Your task to perform on an android device: change the clock style Image 0: 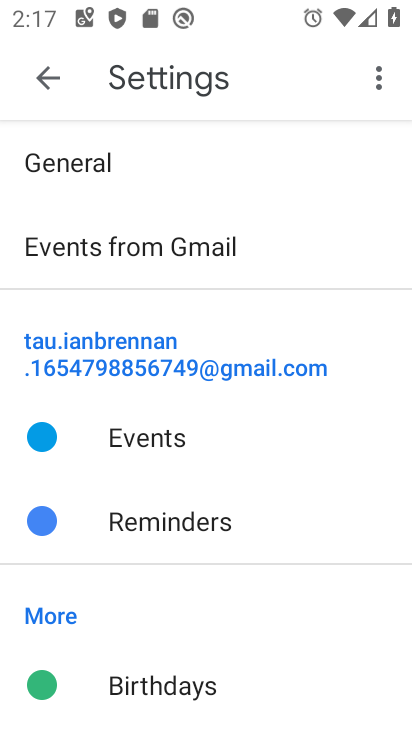
Step 0: press home button
Your task to perform on an android device: change the clock style Image 1: 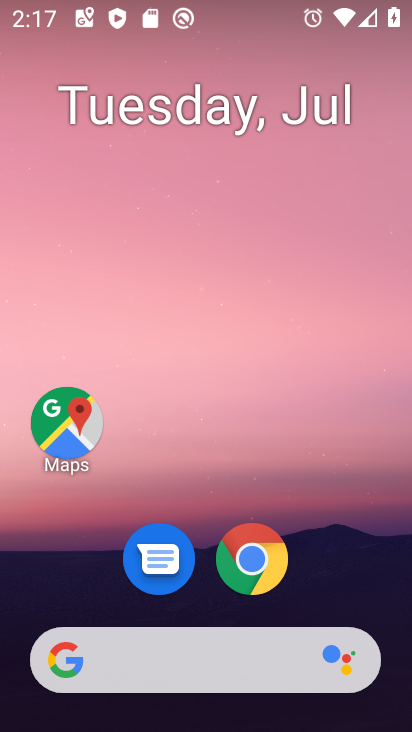
Step 1: drag from (386, 588) to (390, 152)
Your task to perform on an android device: change the clock style Image 2: 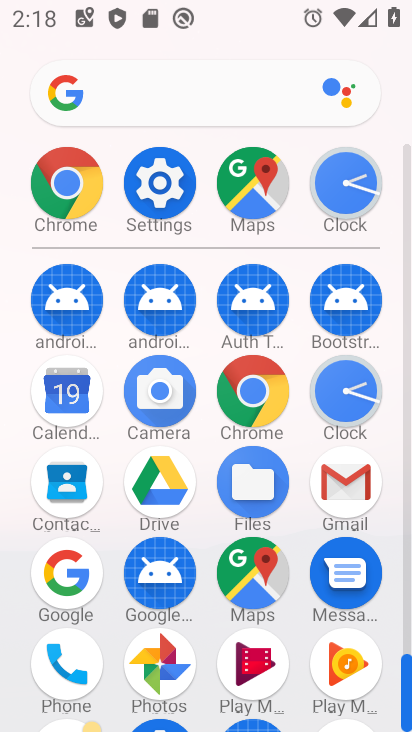
Step 2: click (351, 390)
Your task to perform on an android device: change the clock style Image 3: 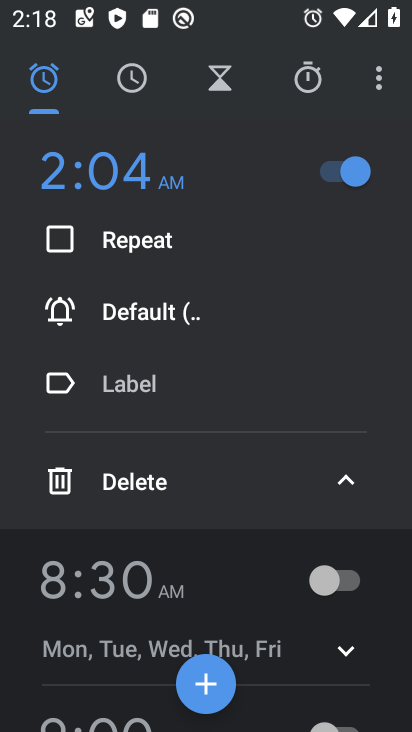
Step 3: click (377, 89)
Your task to perform on an android device: change the clock style Image 4: 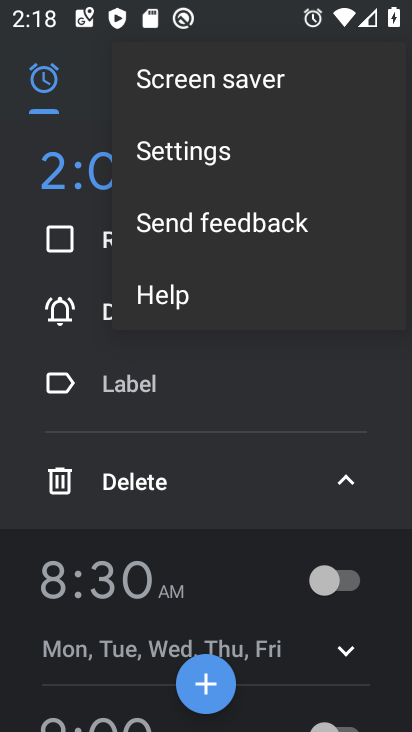
Step 4: click (226, 156)
Your task to perform on an android device: change the clock style Image 5: 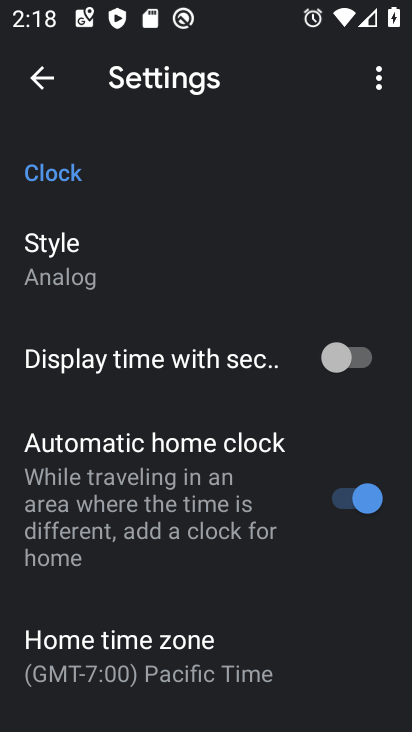
Step 5: drag from (274, 419) to (283, 365)
Your task to perform on an android device: change the clock style Image 6: 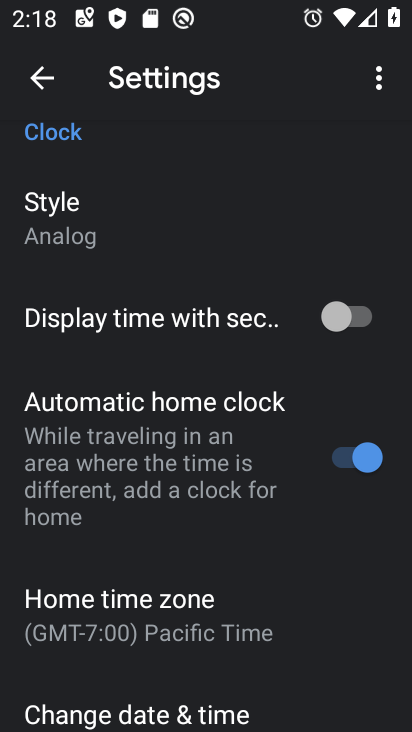
Step 6: drag from (293, 453) to (304, 394)
Your task to perform on an android device: change the clock style Image 7: 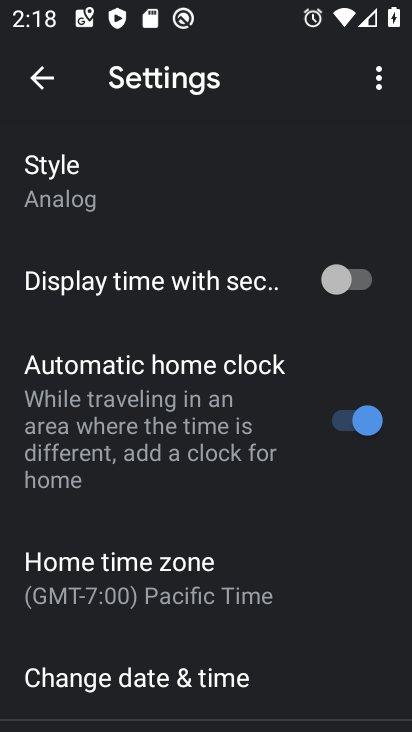
Step 7: drag from (309, 483) to (311, 415)
Your task to perform on an android device: change the clock style Image 8: 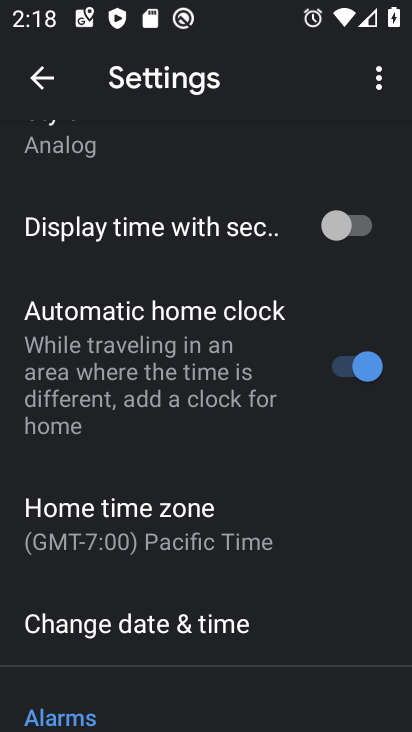
Step 8: drag from (311, 477) to (310, 400)
Your task to perform on an android device: change the clock style Image 9: 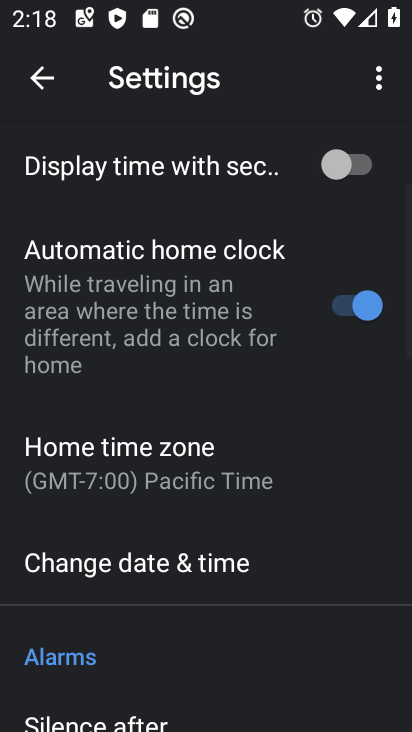
Step 9: drag from (301, 294) to (301, 382)
Your task to perform on an android device: change the clock style Image 10: 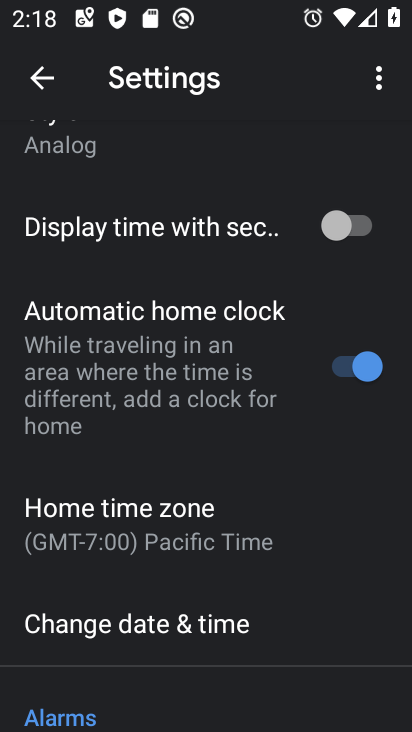
Step 10: drag from (314, 288) to (307, 379)
Your task to perform on an android device: change the clock style Image 11: 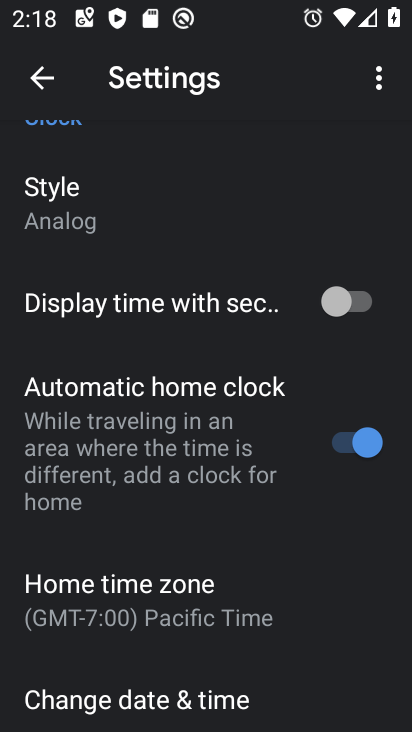
Step 11: drag from (292, 269) to (292, 419)
Your task to perform on an android device: change the clock style Image 12: 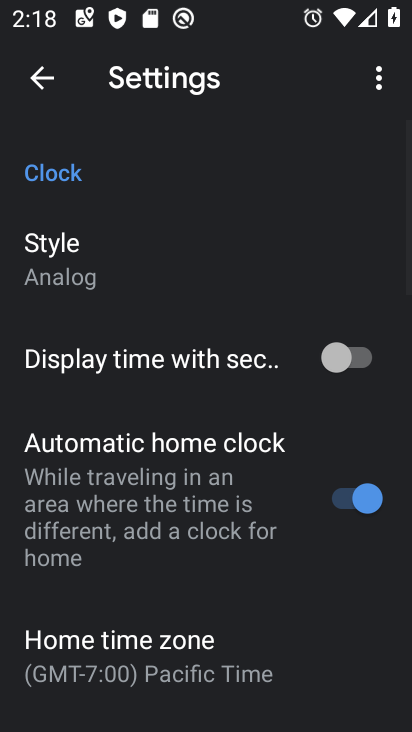
Step 12: click (123, 278)
Your task to perform on an android device: change the clock style Image 13: 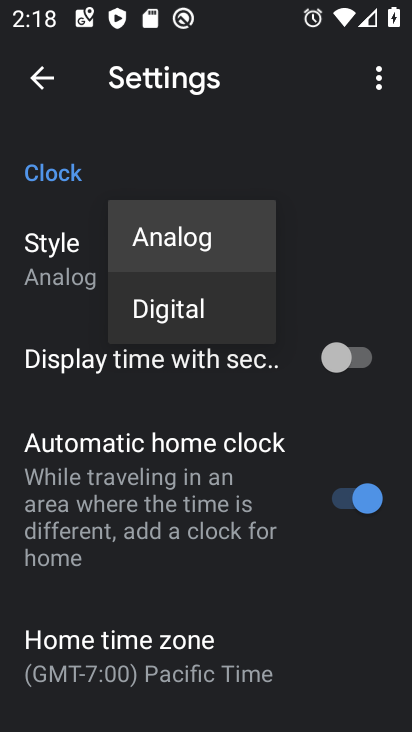
Step 13: click (152, 308)
Your task to perform on an android device: change the clock style Image 14: 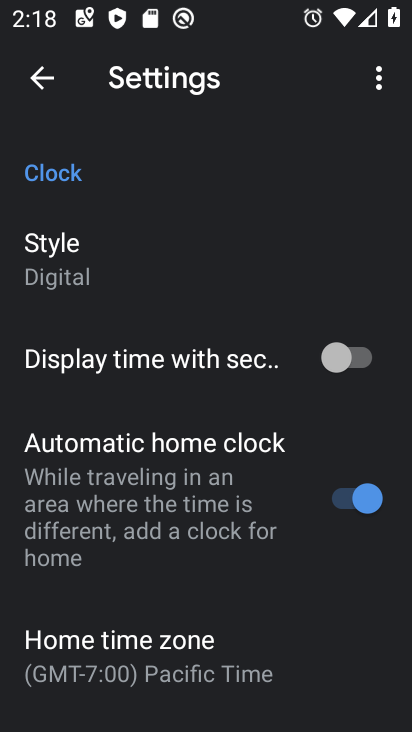
Step 14: task complete